Your task to perform on an android device: Open my contact list Image 0: 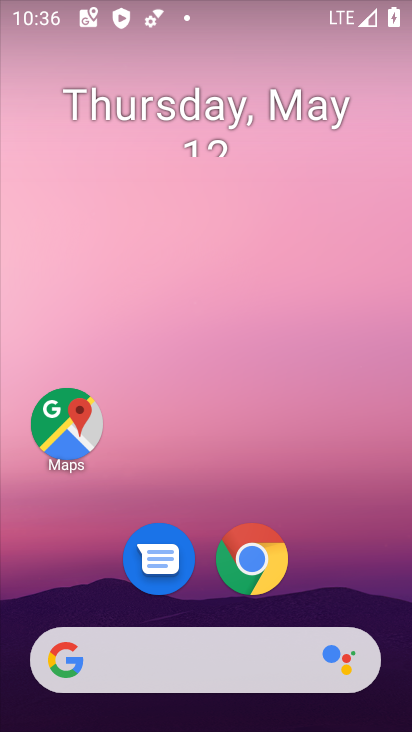
Step 0: drag from (203, 605) to (241, 179)
Your task to perform on an android device: Open my contact list Image 1: 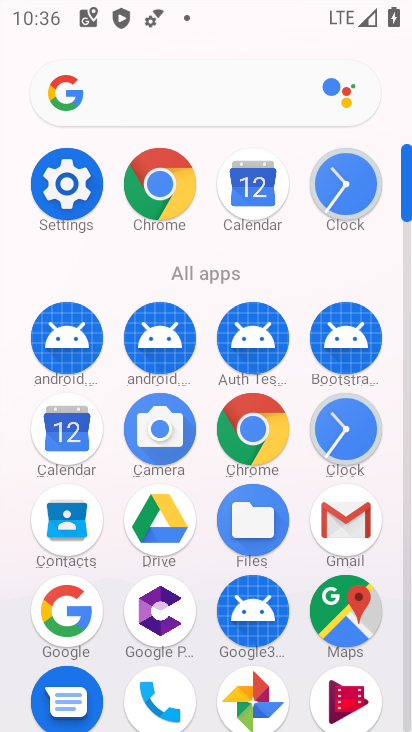
Step 1: click (76, 509)
Your task to perform on an android device: Open my contact list Image 2: 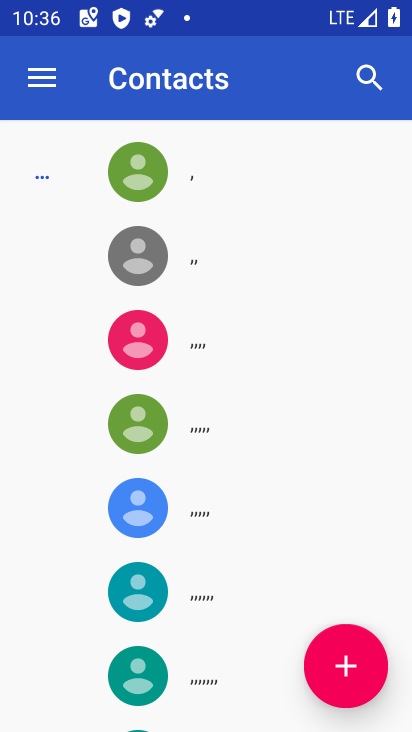
Step 2: task complete